Your task to perform on an android device: Search for vegetarian restaurants on Maps Image 0: 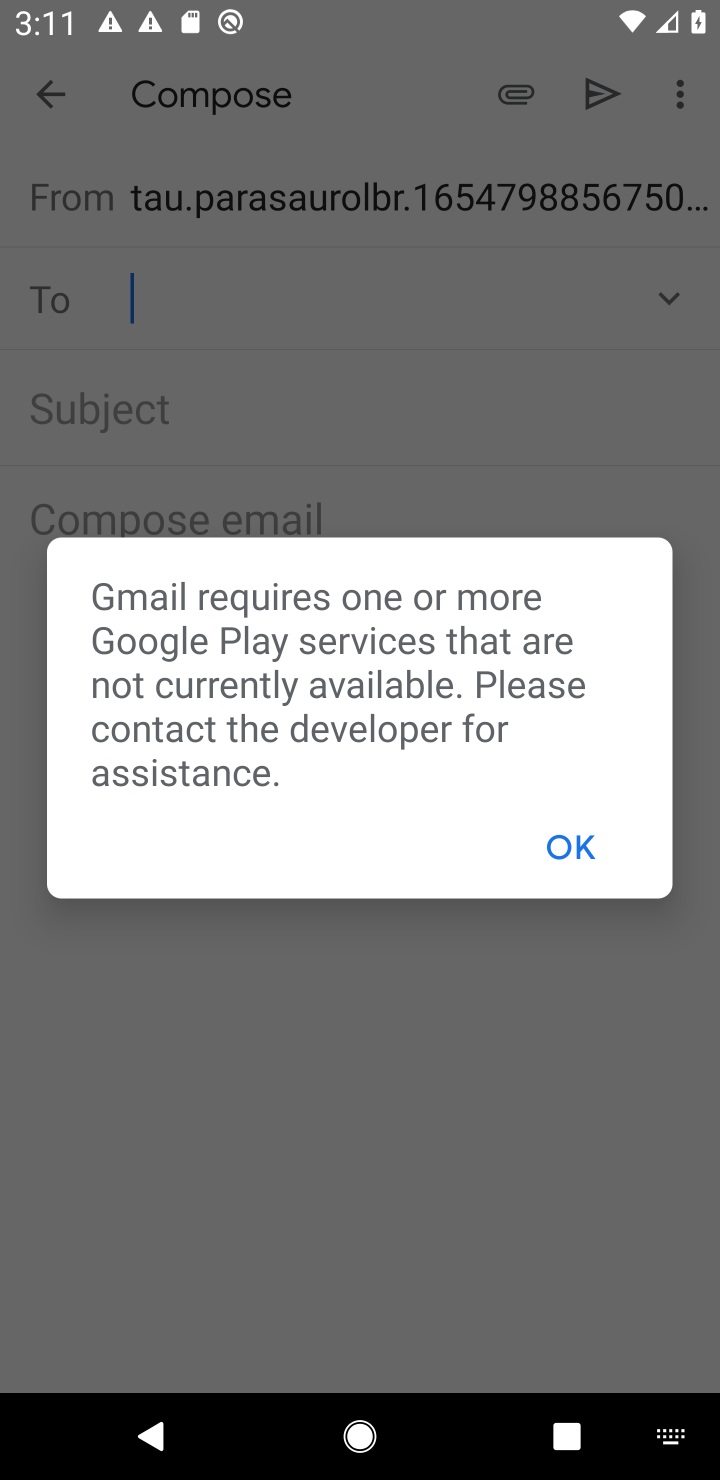
Step 0: task complete